Your task to perform on an android device: change the clock display to digital Image 0: 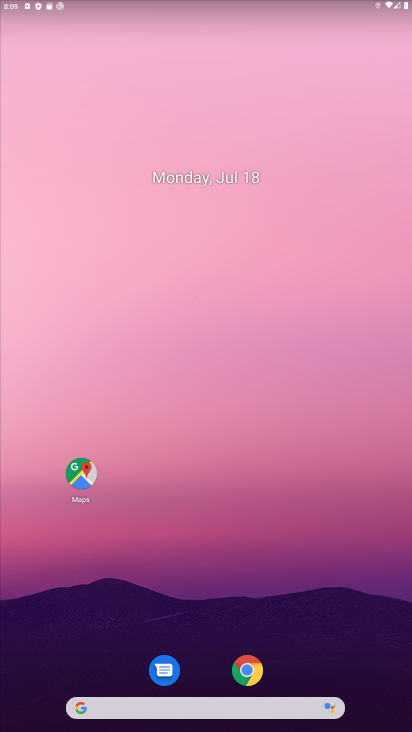
Step 0: click (196, 677)
Your task to perform on an android device: change the clock display to digital Image 1: 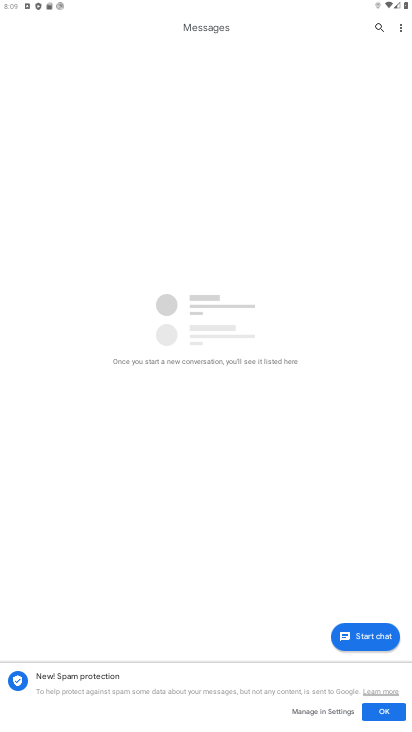
Step 1: press home button
Your task to perform on an android device: change the clock display to digital Image 2: 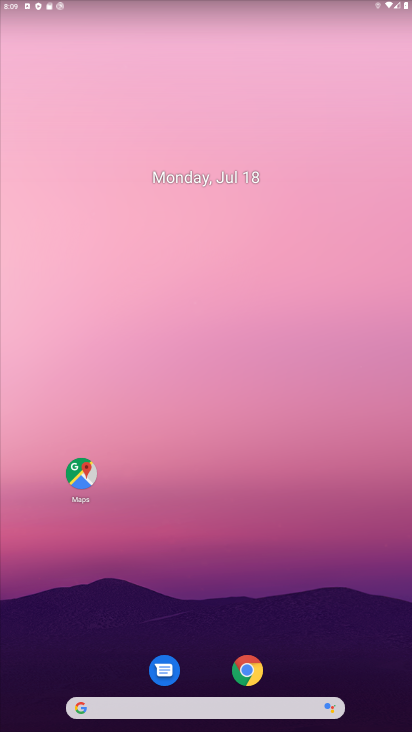
Step 2: drag from (198, 645) to (204, 161)
Your task to perform on an android device: change the clock display to digital Image 3: 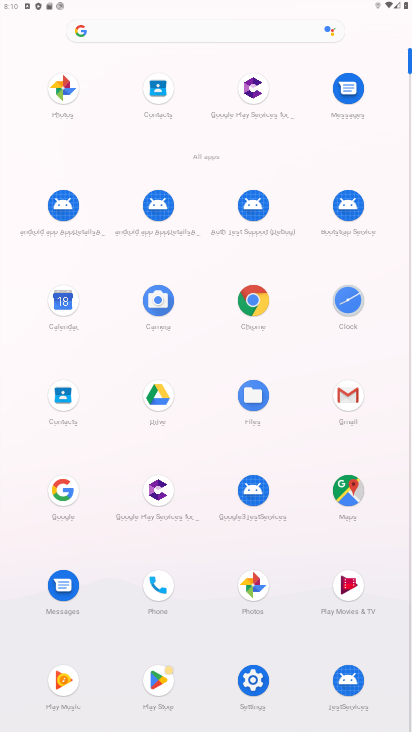
Step 3: click (356, 303)
Your task to perform on an android device: change the clock display to digital Image 4: 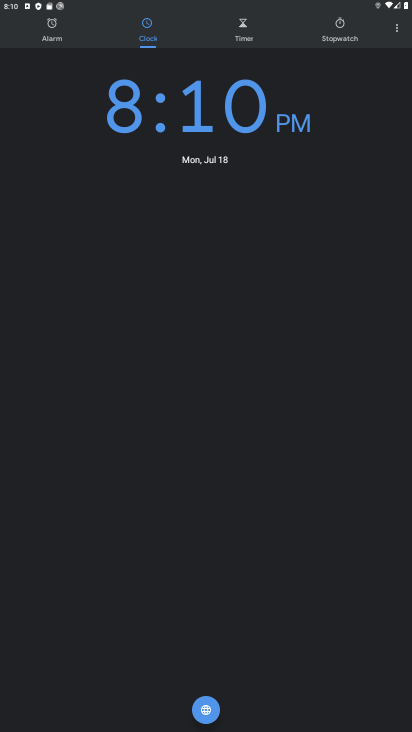
Step 4: click (400, 26)
Your task to perform on an android device: change the clock display to digital Image 5: 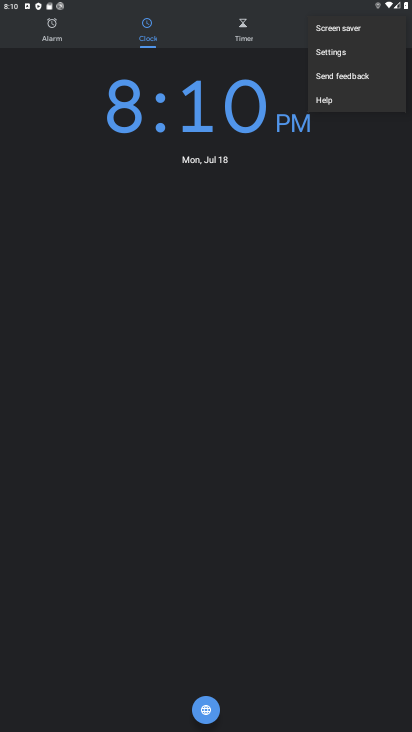
Step 5: click (320, 62)
Your task to perform on an android device: change the clock display to digital Image 6: 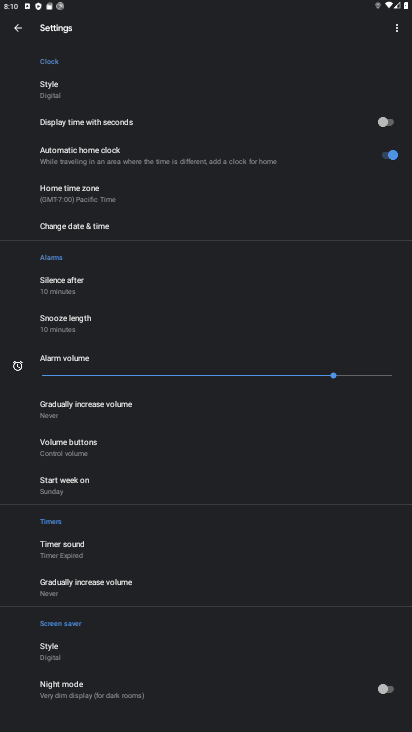
Step 6: click (62, 102)
Your task to perform on an android device: change the clock display to digital Image 7: 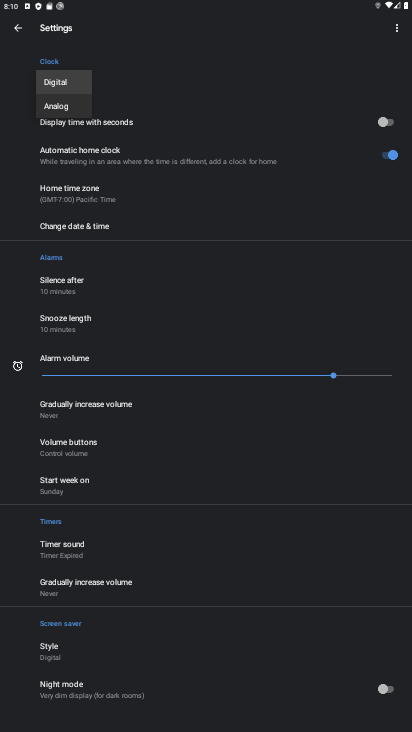
Step 7: task complete